Your task to perform on an android device: toggle javascript in the chrome app Image 0: 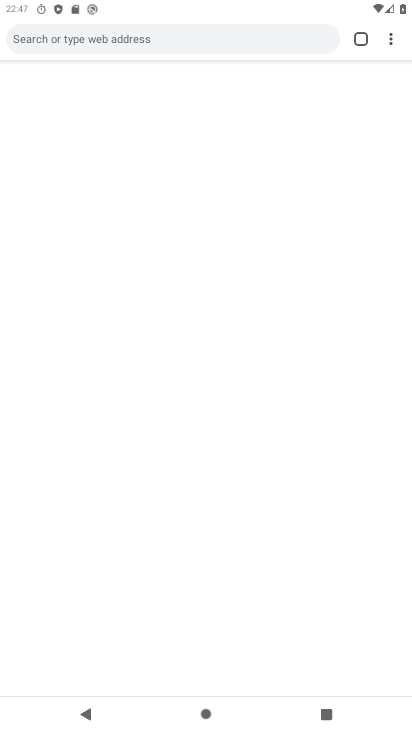
Step 0: drag from (214, 597) to (393, 193)
Your task to perform on an android device: toggle javascript in the chrome app Image 1: 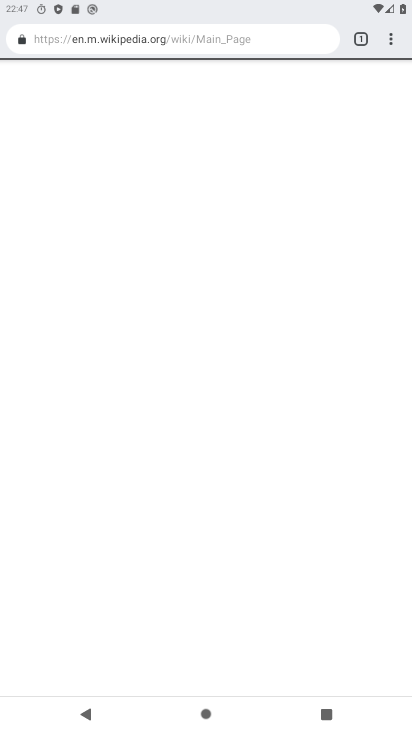
Step 1: press home button
Your task to perform on an android device: toggle javascript in the chrome app Image 2: 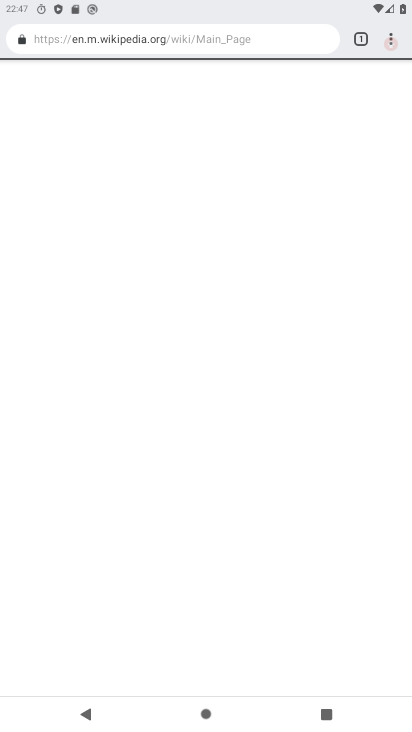
Step 2: drag from (393, 193) to (344, 237)
Your task to perform on an android device: toggle javascript in the chrome app Image 3: 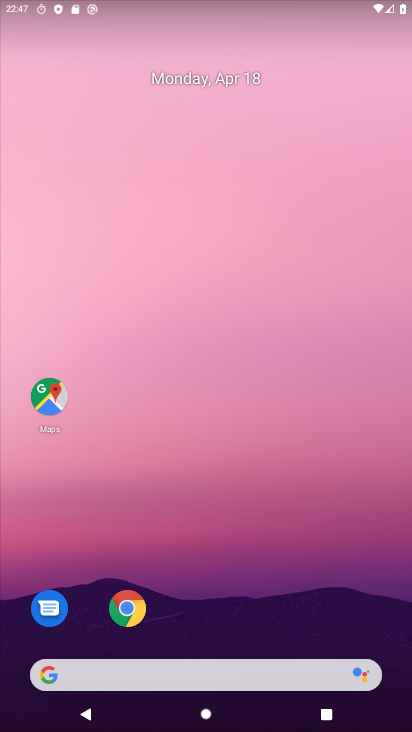
Step 3: drag from (238, 570) to (265, 124)
Your task to perform on an android device: toggle javascript in the chrome app Image 4: 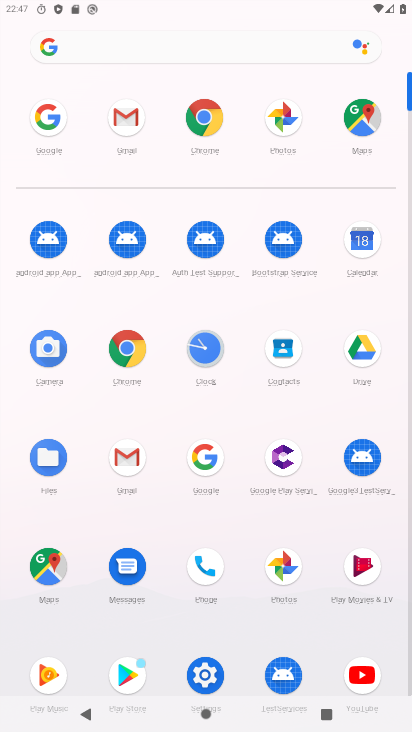
Step 4: click (129, 343)
Your task to perform on an android device: toggle javascript in the chrome app Image 5: 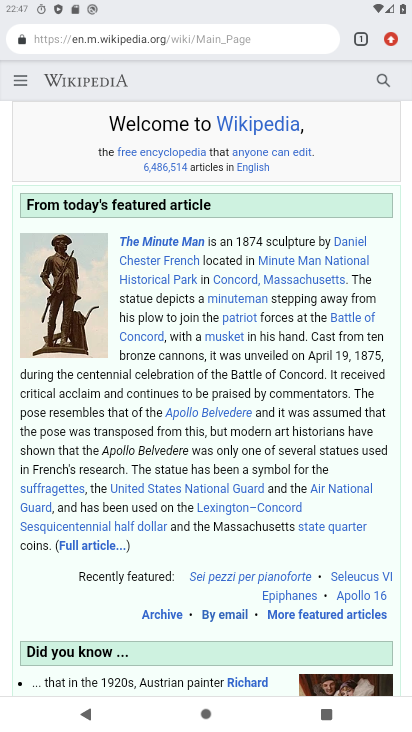
Step 5: click (391, 38)
Your task to perform on an android device: toggle javascript in the chrome app Image 6: 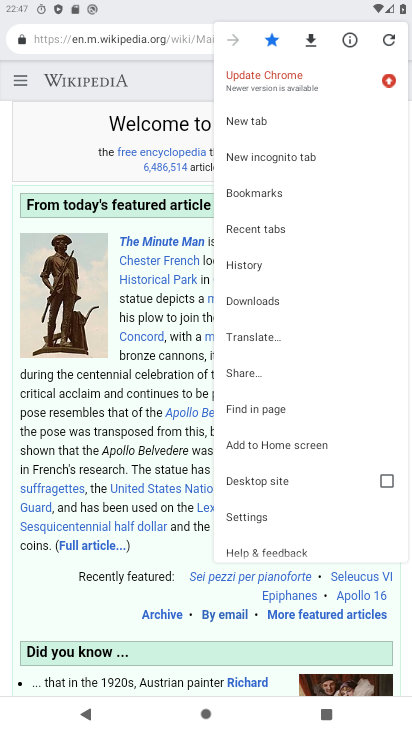
Step 6: click (254, 510)
Your task to perform on an android device: toggle javascript in the chrome app Image 7: 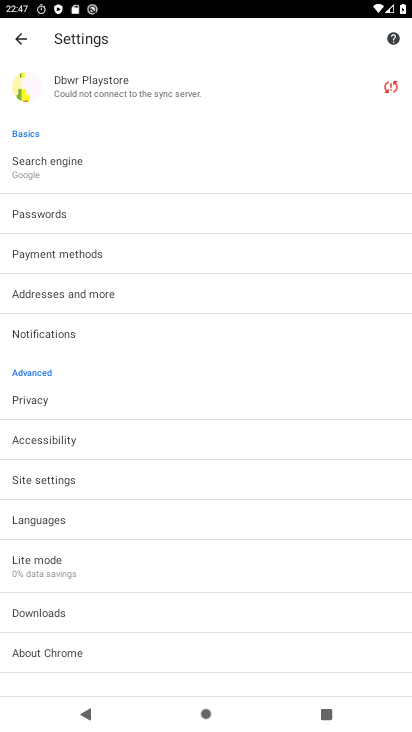
Step 7: click (60, 481)
Your task to perform on an android device: toggle javascript in the chrome app Image 8: 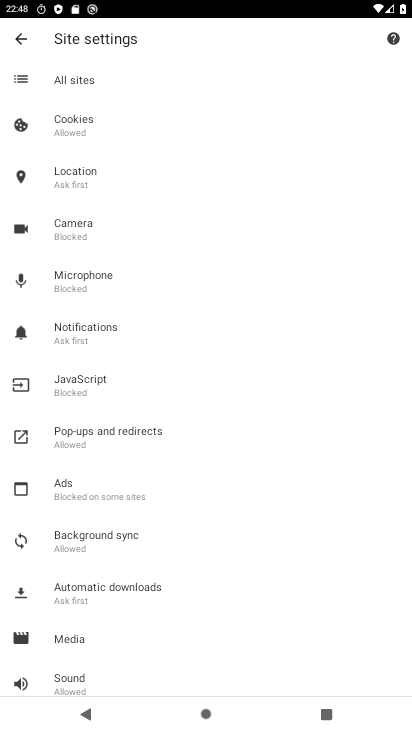
Step 8: click (111, 386)
Your task to perform on an android device: toggle javascript in the chrome app Image 9: 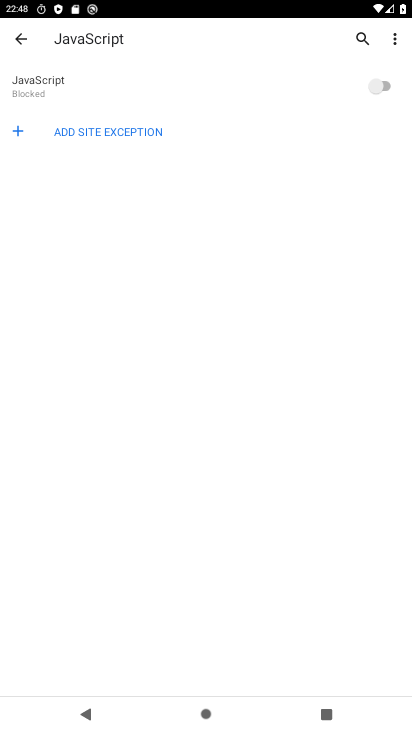
Step 9: click (386, 82)
Your task to perform on an android device: toggle javascript in the chrome app Image 10: 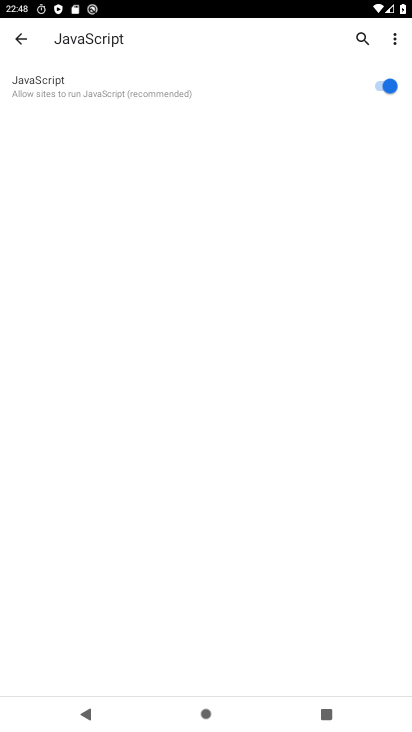
Step 10: task complete